Your task to perform on an android device: toggle javascript in the chrome app Image 0: 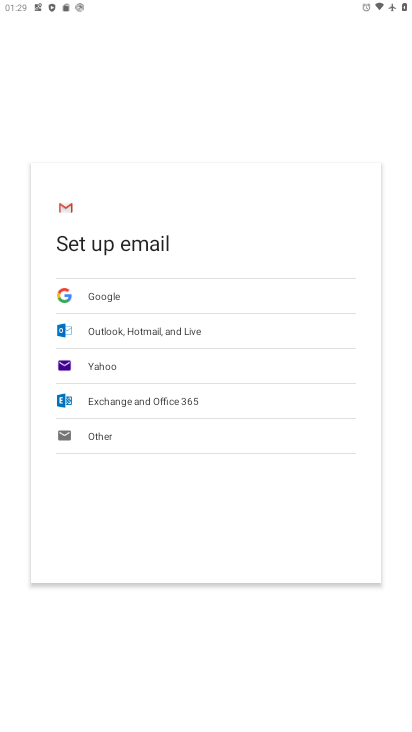
Step 0: press home button
Your task to perform on an android device: toggle javascript in the chrome app Image 1: 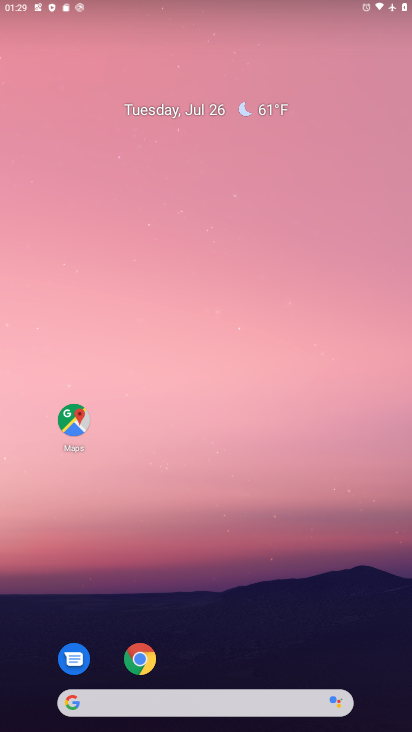
Step 1: drag from (233, 645) to (140, 146)
Your task to perform on an android device: toggle javascript in the chrome app Image 2: 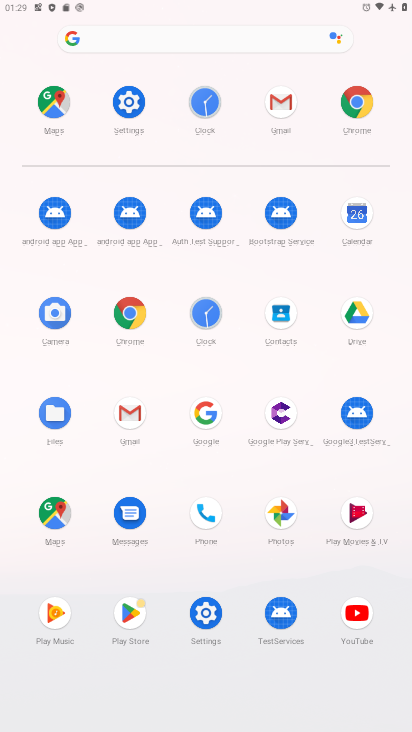
Step 2: click (354, 101)
Your task to perform on an android device: toggle javascript in the chrome app Image 3: 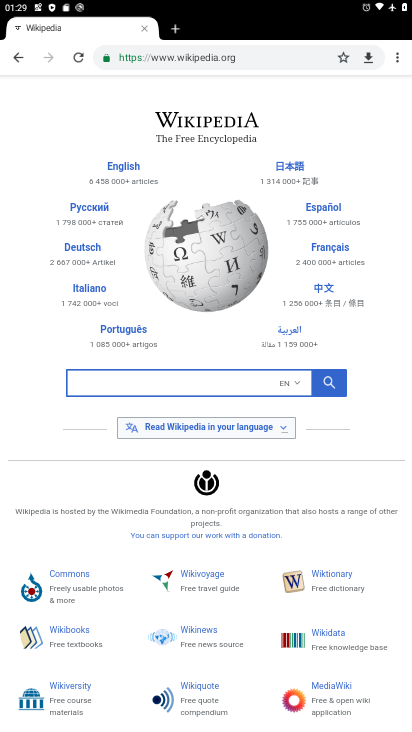
Step 3: drag from (398, 50) to (299, 384)
Your task to perform on an android device: toggle javascript in the chrome app Image 4: 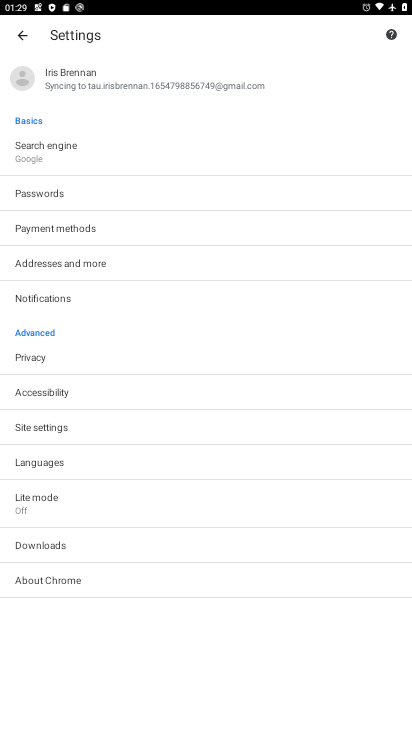
Step 4: click (52, 427)
Your task to perform on an android device: toggle javascript in the chrome app Image 5: 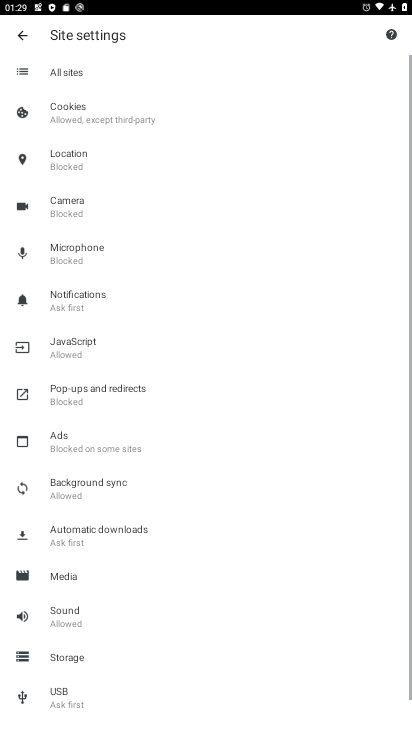
Step 5: click (82, 349)
Your task to perform on an android device: toggle javascript in the chrome app Image 6: 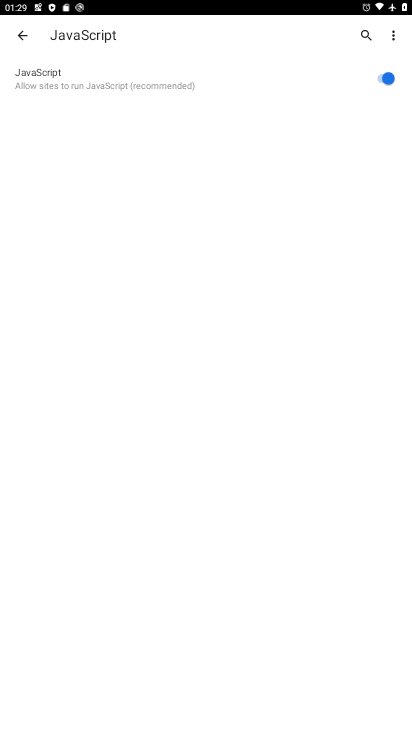
Step 6: click (383, 69)
Your task to perform on an android device: toggle javascript in the chrome app Image 7: 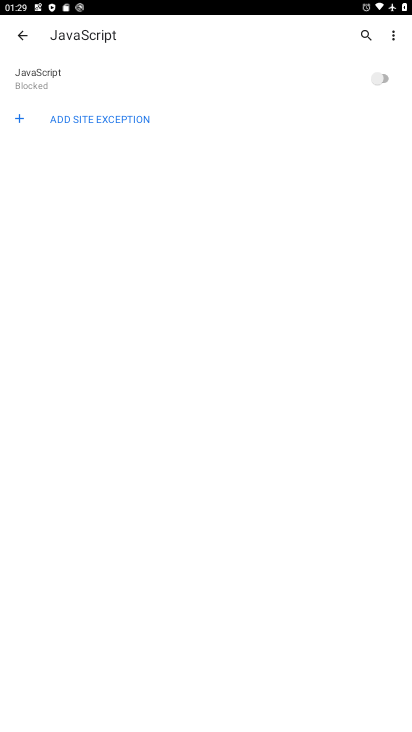
Step 7: task complete